Your task to perform on an android device: open a bookmark in the chrome app Image 0: 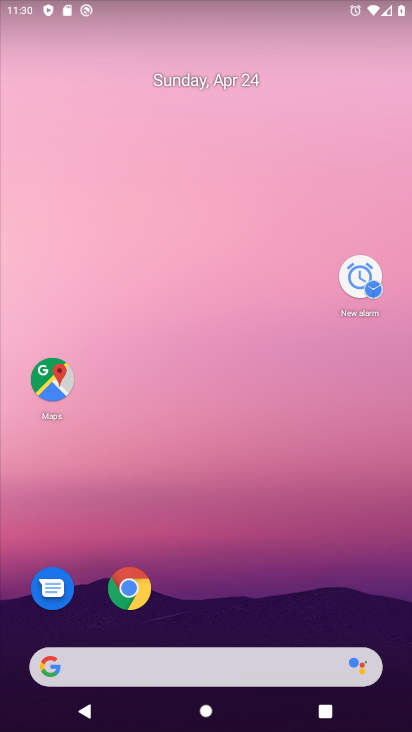
Step 0: click (127, 593)
Your task to perform on an android device: open a bookmark in the chrome app Image 1: 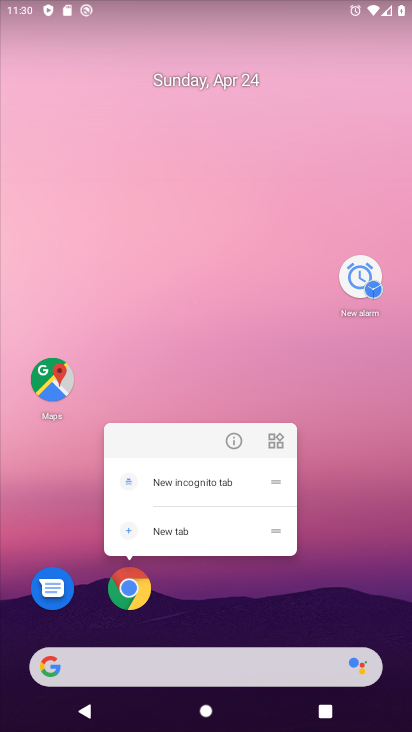
Step 1: click (132, 586)
Your task to perform on an android device: open a bookmark in the chrome app Image 2: 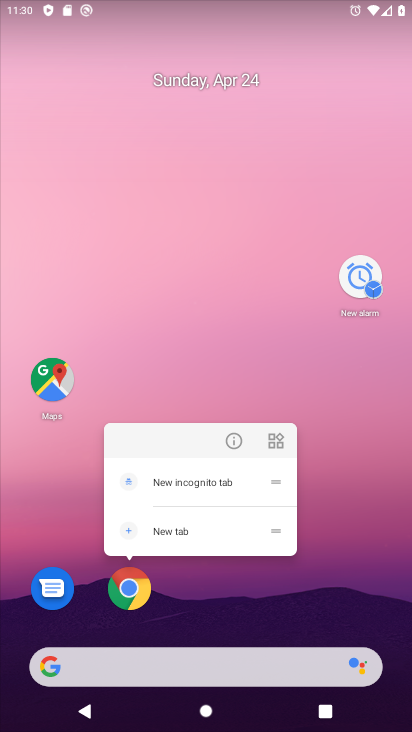
Step 2: click (140, 599)
Your task to perform on an android device: open a bookmark in the chrome app Image 3: 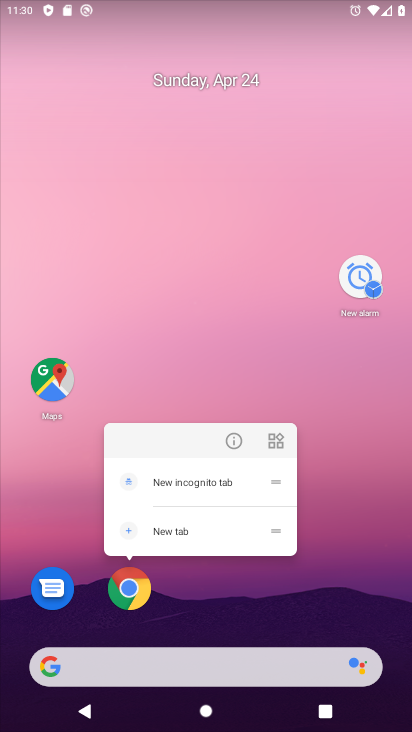
Step 3: drag from (206, 629) to (378, 8)
Your task to perform on an android device: open a bookmark in the chrome app Image 4: 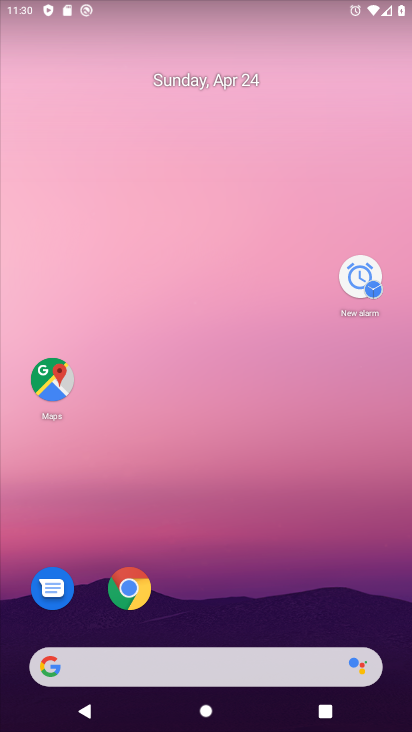
Step 4: drag from (219, 629) to (322, 0)
Your task to perform on an android device: open a bookmark in the chrome app Image 5: 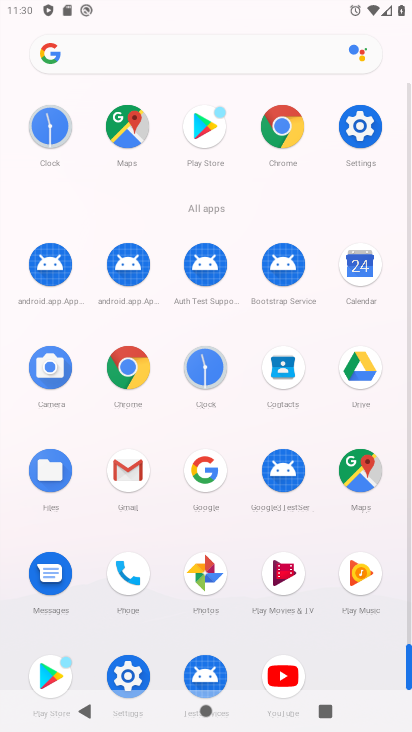
Step 5: click (137, 370)
Your task to perform on an android device: open a bookmark in the chrome app Image 6: 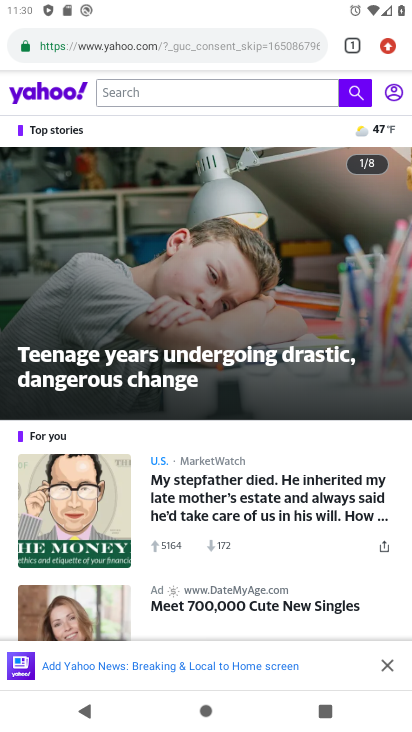
Step 6: drag from (382, 45) to (312, 221)
Your task to perform on an android device: open a bookmark in the chrome app Image 7: 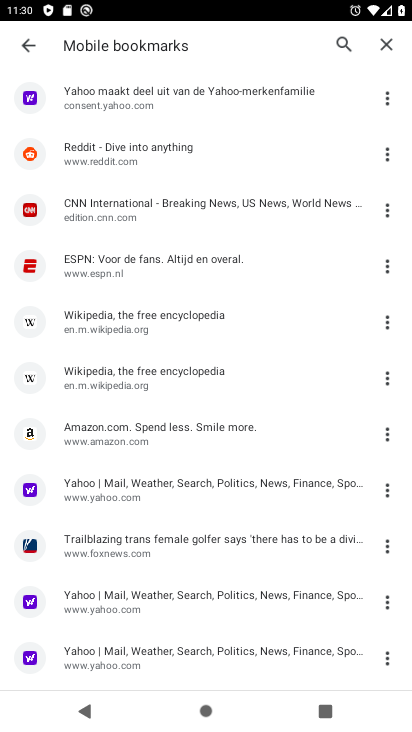
Step 7: click (187, 372)
Your task to perform on an android device: open a bookmark in the chrome app Image 8: 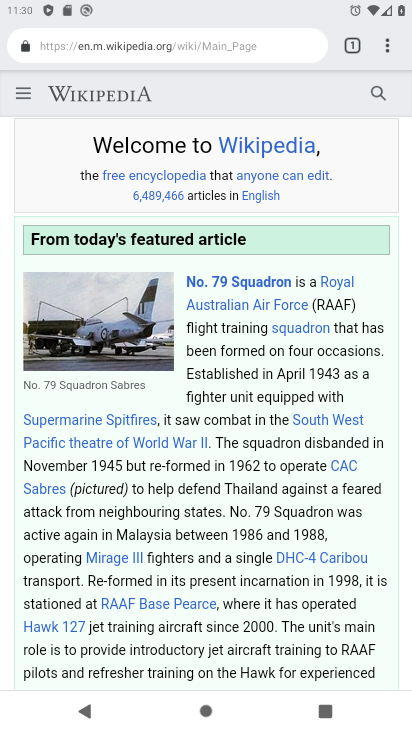
Step 8: task complete